Your task to perform on an android device: Is it going to rain this weekend? Image 0: 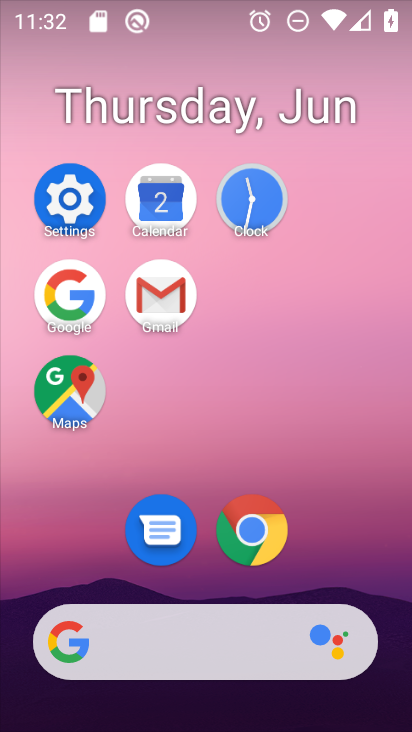
Step 0: click (72, 316)
Your task to perform on an android device: Is it going to rain this weekend? Image 1: 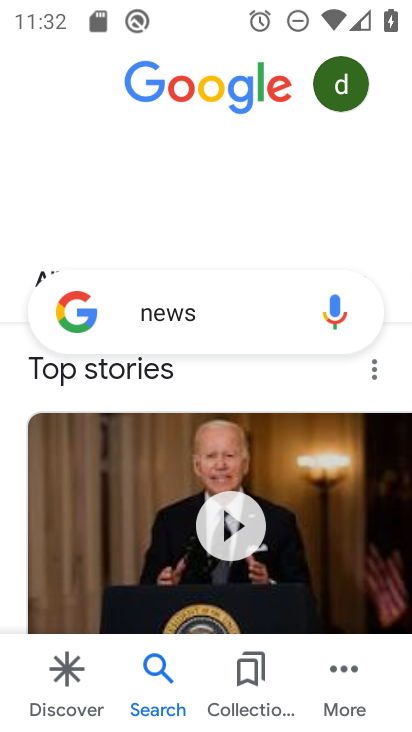
Step 1: click (259, 312)
Your task to perform on an android device: Is it going to rain this weekend? Image 2: 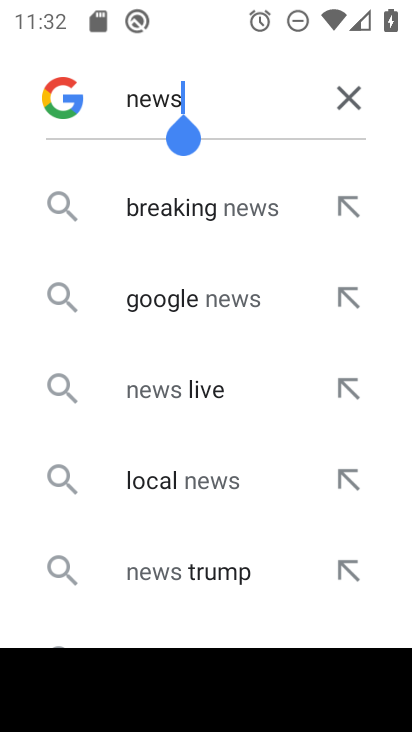
Step 2: click (356, 98)
Your task to perform on an android device: Is it going to rain this weekend? Image 3: 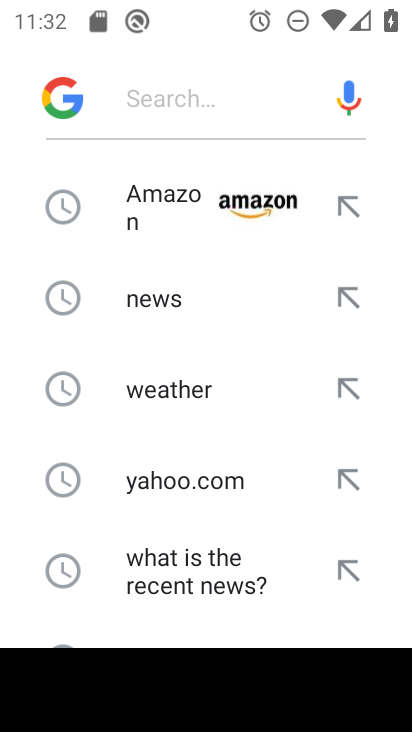
Step 3: drag from (212, 481) to (237, 218)
Your task to perform on an android device: Is it going to rain this weekend? Image 4: 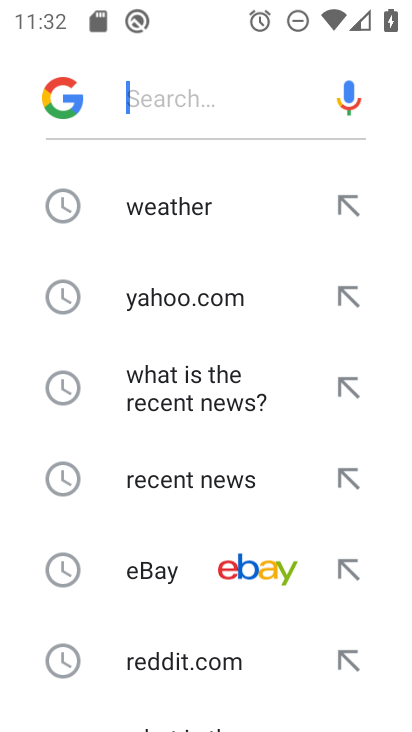
Step 4: drag from (219, 515) to (196, 190)
Your task to perform on an android device: Is it going to rain this weekend? Image 5: 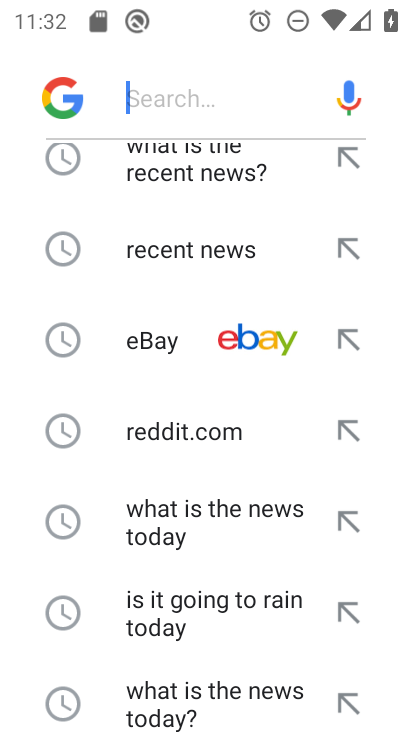
Step 5: drag from (235, 570) to (255, 303)
Your task to perform on an android device: Is it going to rain this weekend? Image 6: 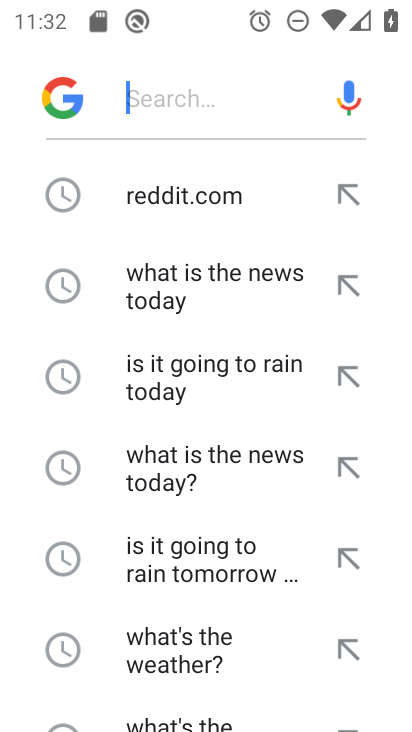
Step 6: drag from (204, 505) to (164, 188)
Your task to perform on an android device: Is it going to rain this weekend? Image 7: 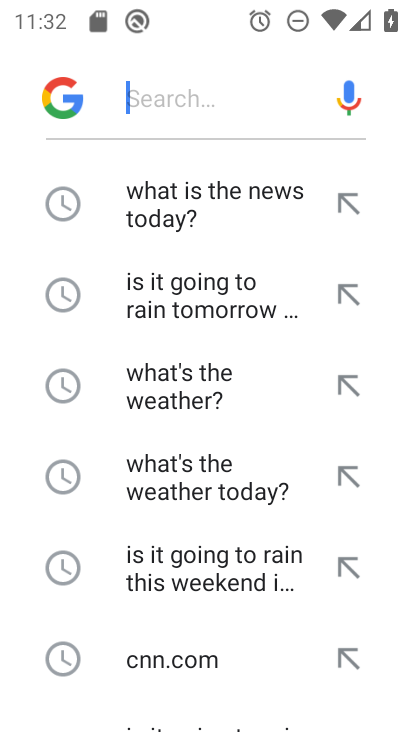
Step 7: click (214, 584)
Your task to perform on an android device: Is it going to rain this weekend? Image 8: 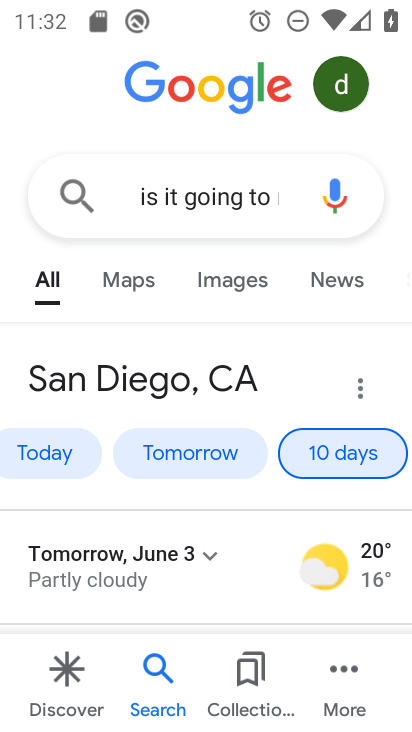
Step 8: drag from (254, 588) to (251, 200)
Your task to perform on an android device: Is it going to rain this weekend? Image 9: 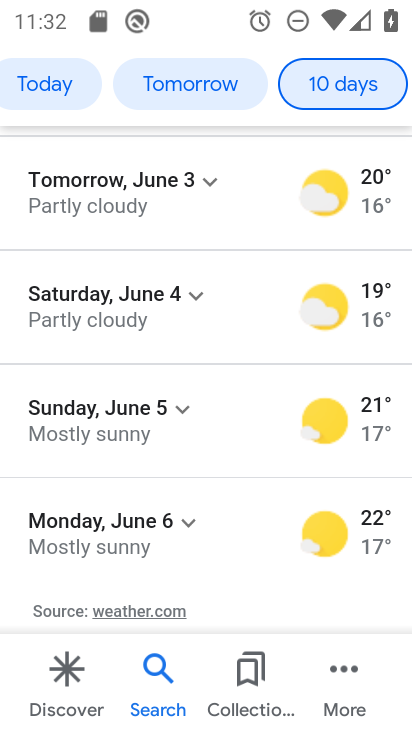
Step 9: click (171, 317)
Your task to perform on an android device: Is it going to rain this weekend? Image 10: 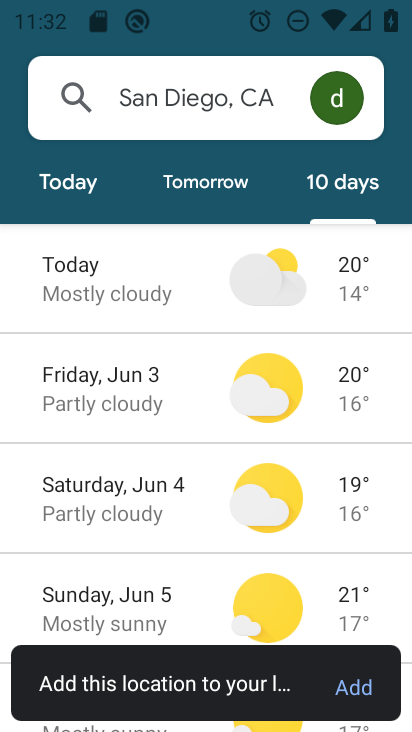
Step 10: click (183, 502)
Your task to perform on an android device: Is it going to rain this weekend? Image 11: 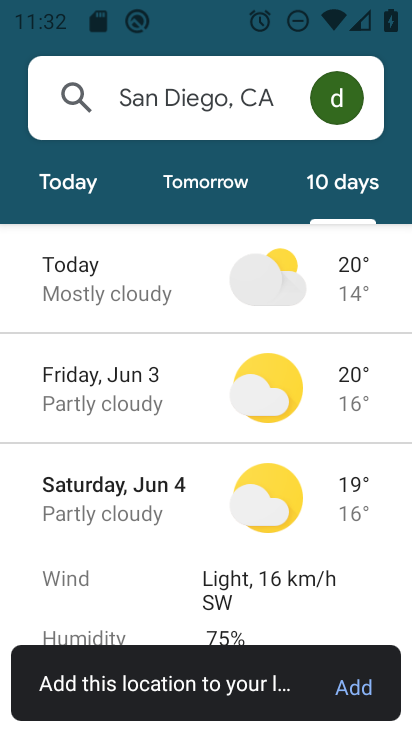
Step 11: task complete